Your task to perform on an android device: see creations saved in the google photos Image 0: 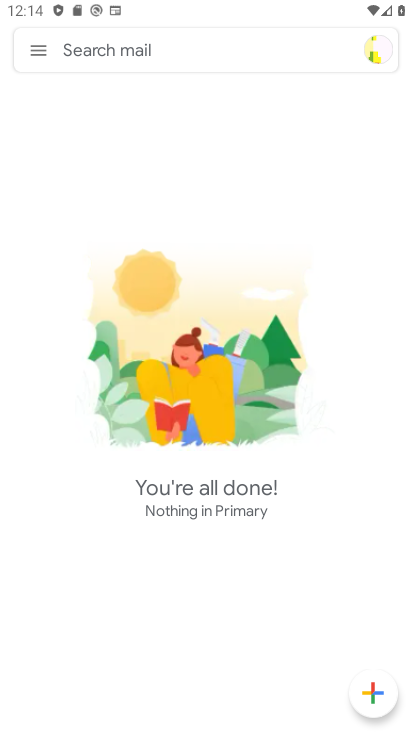
Step 0: press home button
Your task to perform on an android device: see creations saved in the google photos Image 1: 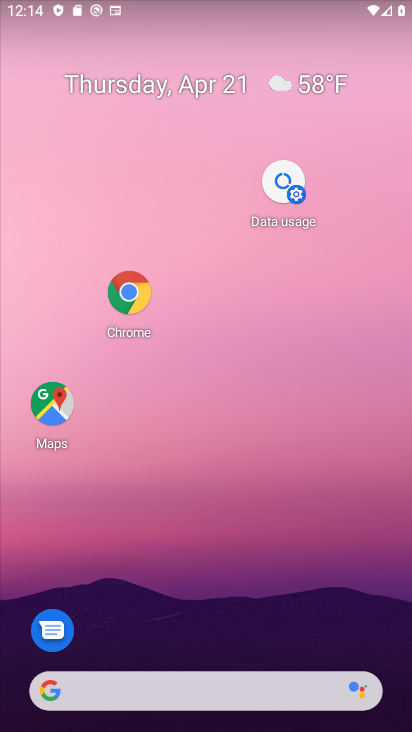
Step 1: drag from (211, 664) to (203, 283)
Your task to perform on an android device: see creations saved in the google photos Image 2: 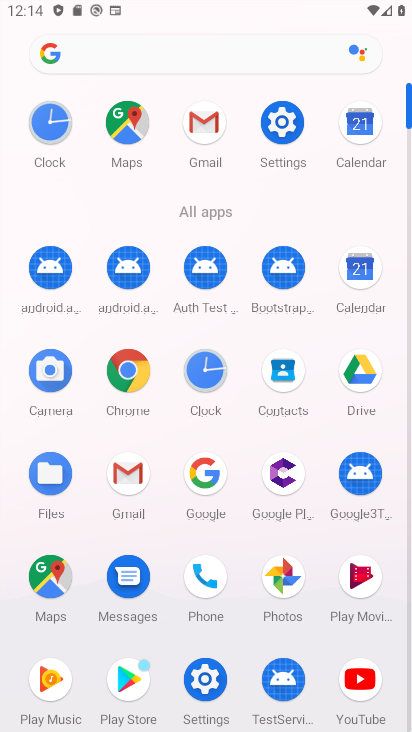
Step 2: click (288, 585)
Your task to perform on an android device: see creations saved in the google photos Image 3: 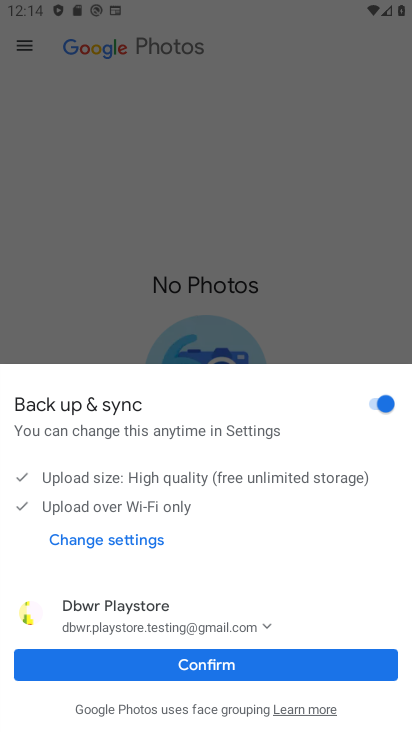
Step 3: click (190, 662)
Your task to perform on an android device: see creations saved in the google photos Image 4: 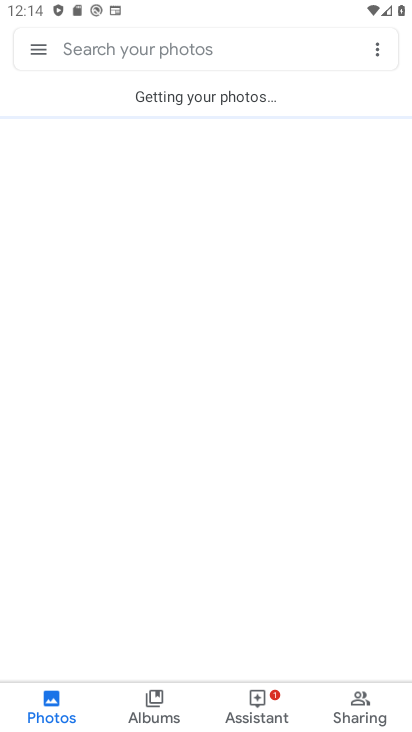
Step 4: click (151, 704)
Your task to perform on an android device: see creations saved in the google photos Image 5: 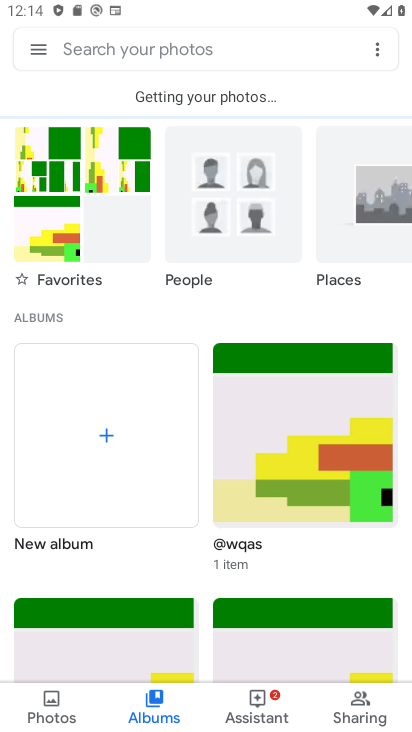
Step 5: click (91, 211)
Your task to perform on an android device: see creations saved in the google photos Image 6: 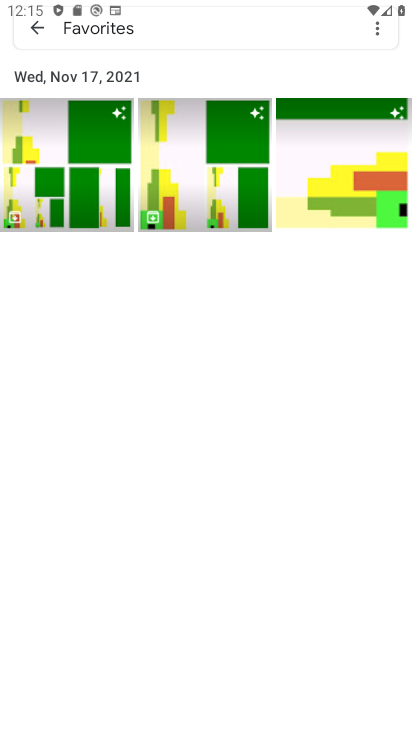
Step 6: click (34, 33)
Your task to perform on an android device: see creations saved in the google photos Image 7: 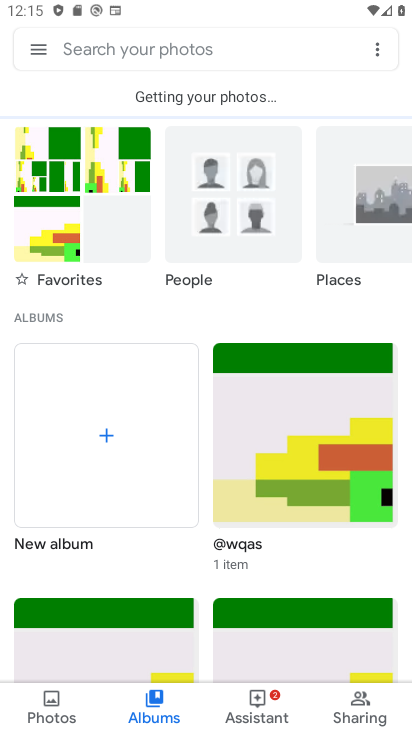
Step 7: task complete